Your task to perform on an android device: open app "Microsoft Excel" (install if not already installed) Image 0: 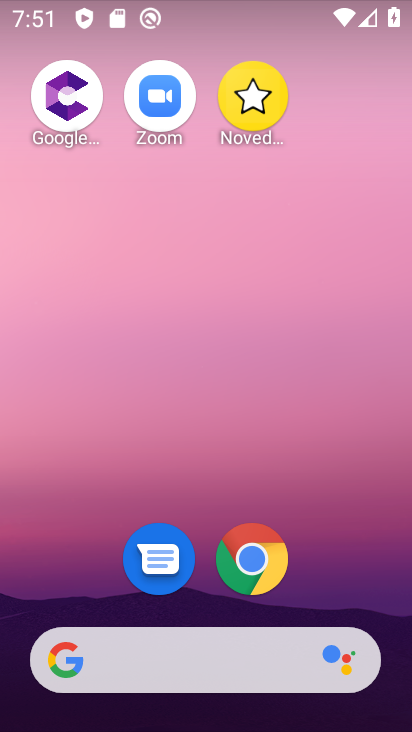
Step 0: drag from (235, 639) to (294, 150)
Your task to perform on an android device: open app "Microsoft Excel" (install if not already installed) Image 1: 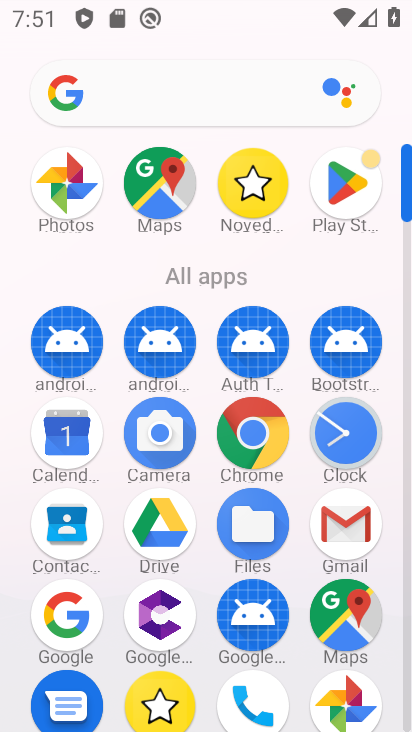
Step 1: click (343, 193)
Your task to perform on an android device: open app "Microsoft Excel" (install if not already installed) Image 2: 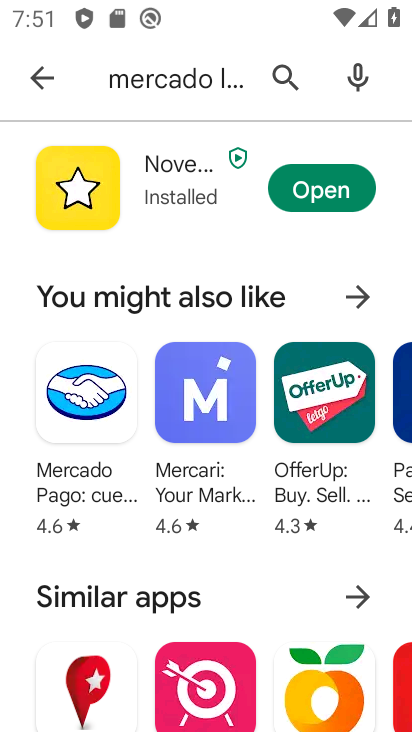
Step 2: click (294, 82)
Your task to perform on an android device: open app "Microsoft Excel" (install if not already installed) Image 3: 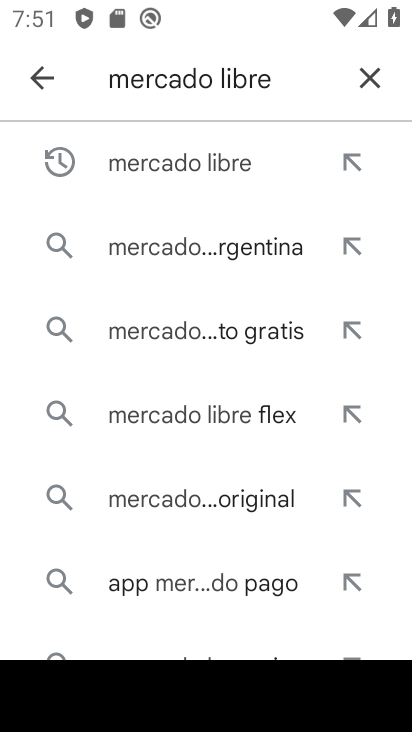
Step 3: click (372, 85)
Your task to perform on an android device: open app "Microsoft Excel" (install if not already installed) Image 4: 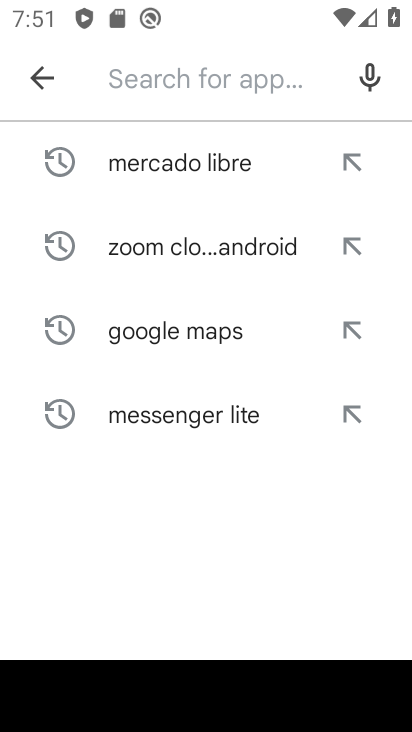
Step 4: type "Microsoft Excel"
Your task to perform on an android device: open app "Microsoft Excel" (install if not already installed) Image 5: 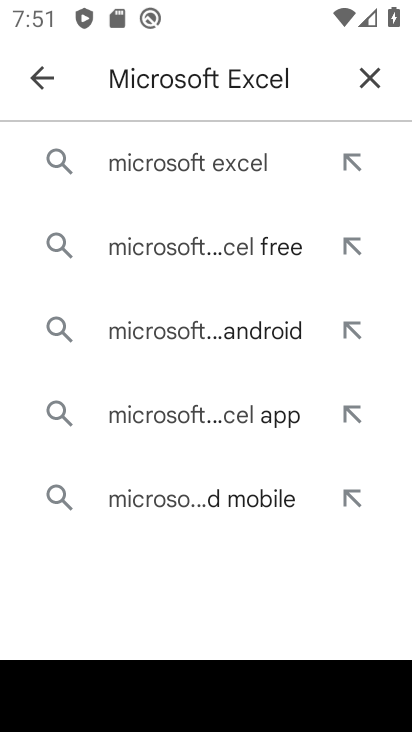
Step 5: click (155, 157)
Your task to perform on an android device: open app "Microsoft Excel" (install if not already installed) Image 6: 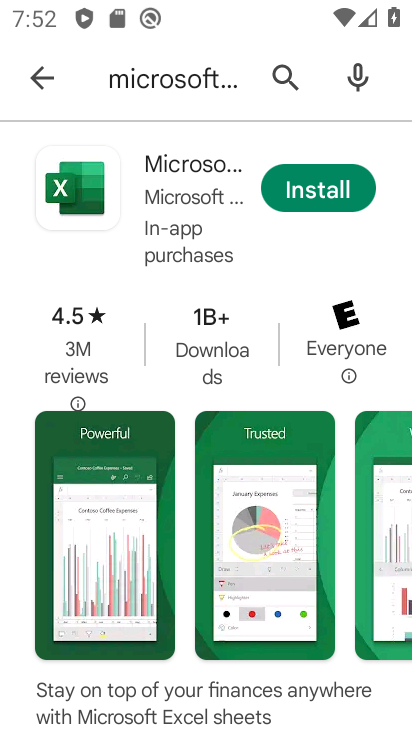
Step 6: click (307, 180)
Your task to perform on an android device: open app "Microsoft Excel" (install if not already installed) Image 7: 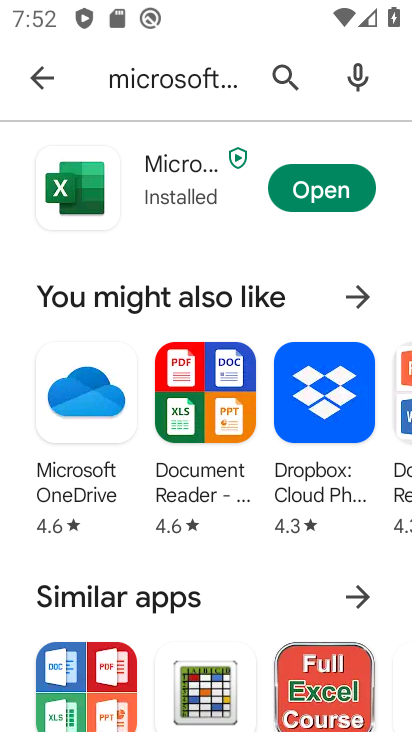
Step 7: click (312, 190)
Your task to perform on an android device: open app "Microsoft Excel" (install if not already installed) Image 8: 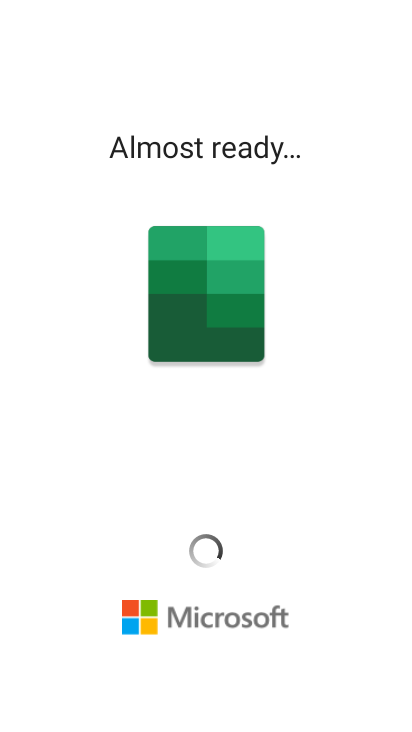
Step 8: task complete